Your task to perform on an android device: Show me the alarms in the clock app Image 0: 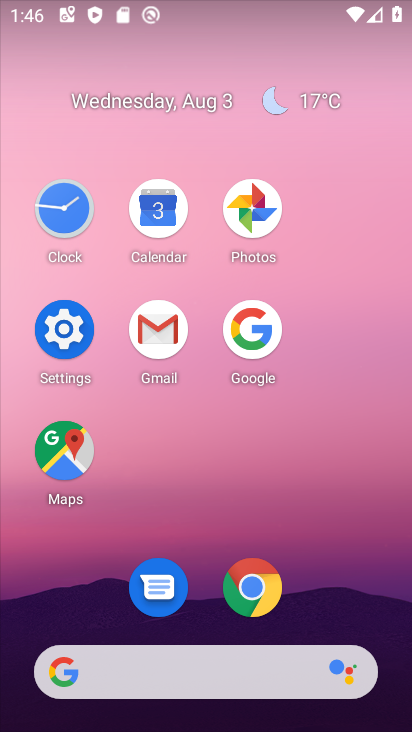
Step 0: click (64, 209)
Your task to perform on an android device: Show me the alarms in the clock app Image 1: 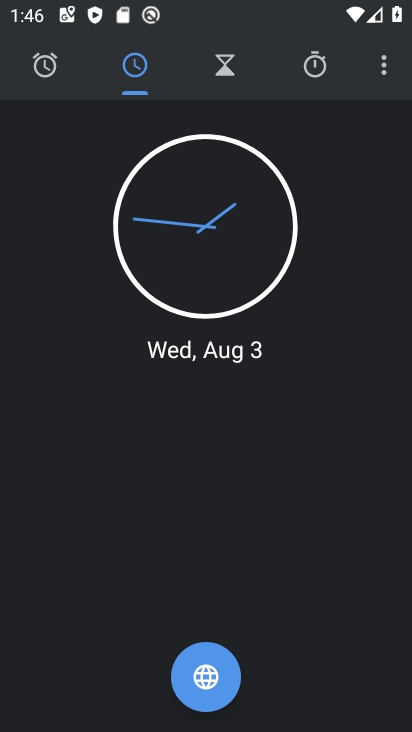
Step 1: click (48, 72)
Your task to perform on an android device: Show me the alarms in the clock app Image 2: 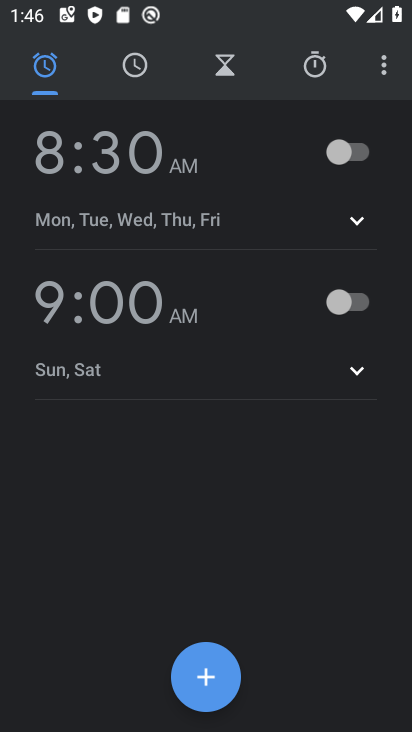
Step 2: click (348, 154)
Your task to perform on an android device: Show me the alarms in the clock app Image 3: 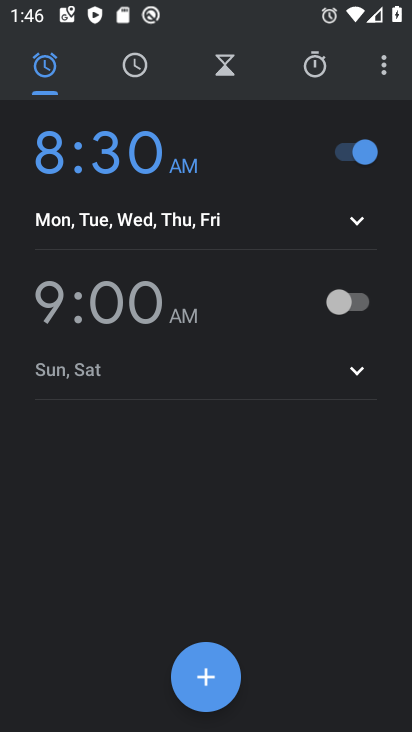
Step 3: task complete